Your task to perform on an android device: change alarm snooze length Image 0: 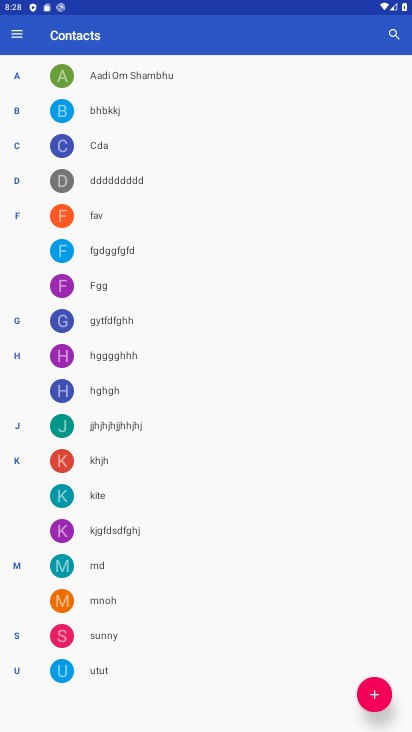
Step 0: press home button
Your task to perform on an android device: change alarm snooze length Image 1: 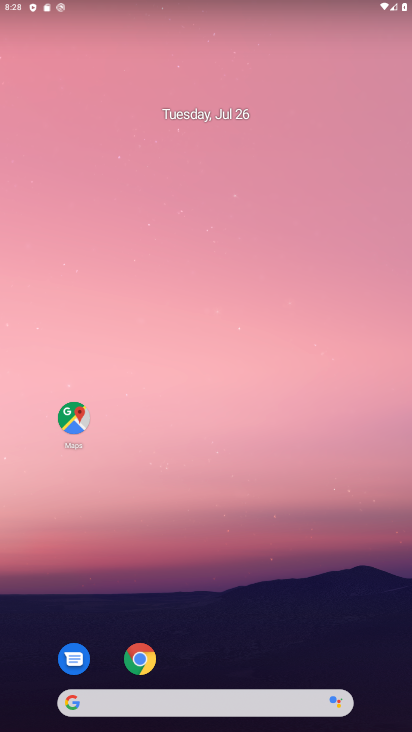
Step 1: drag from (373, 666) to (345, 96)
Your task to perform on an android device: change alarm snooze length Image 2: 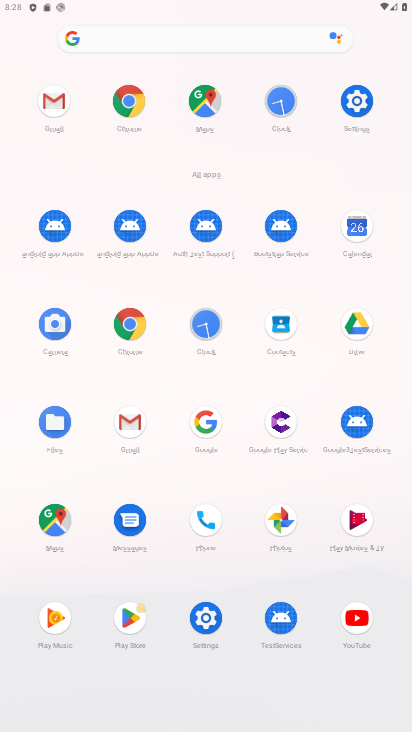
Step 2: click (206, 324)
Your task to perform on an android device: change alarm snooze length Image 3: 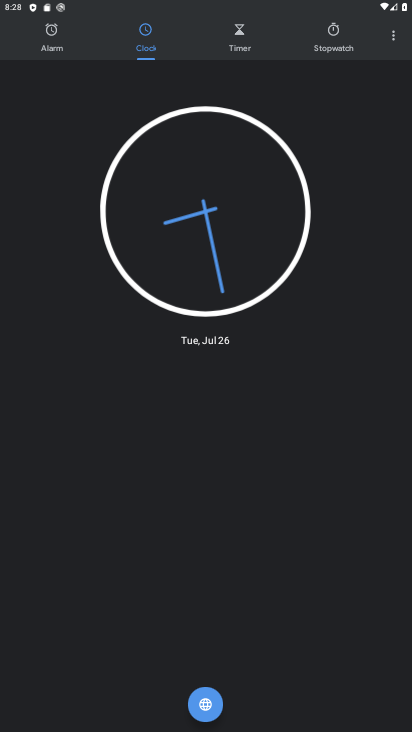
Step 3: click (395, 45)
Your task to perform on an android device: change alarm snooze length Image 4: 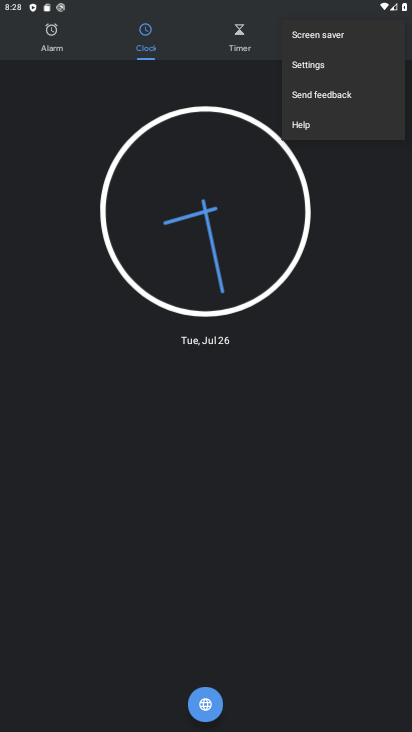
Step 4: click (303, 59)
Your task to perform on an android device: change alarm snooze length Image 5: 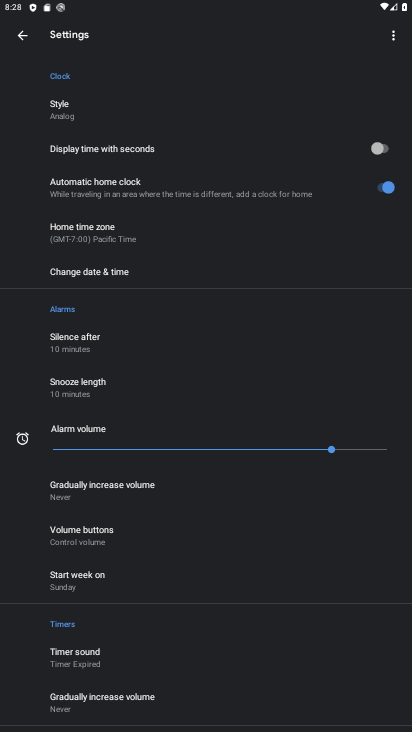
Step 5: click (72, 384)
Your task to perform on an android device: change alarm snooze length Image 6: 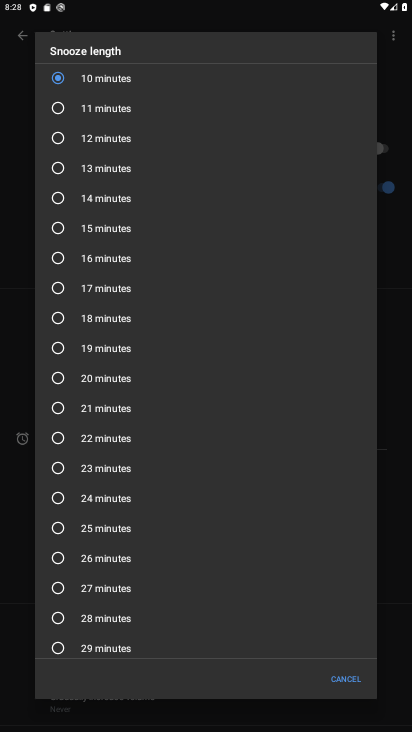
Step 6: click (58, 223)
Your task to perform on an android device: change alarm snooze length Image 7: 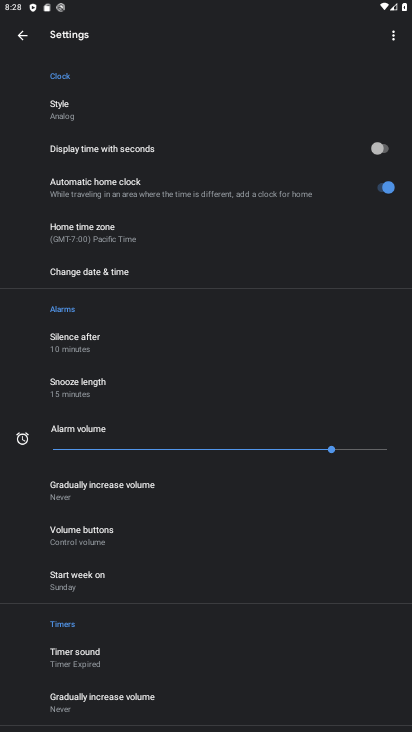
Step 7: task complete